Your task to perform on an android device: Check the news Image 0: 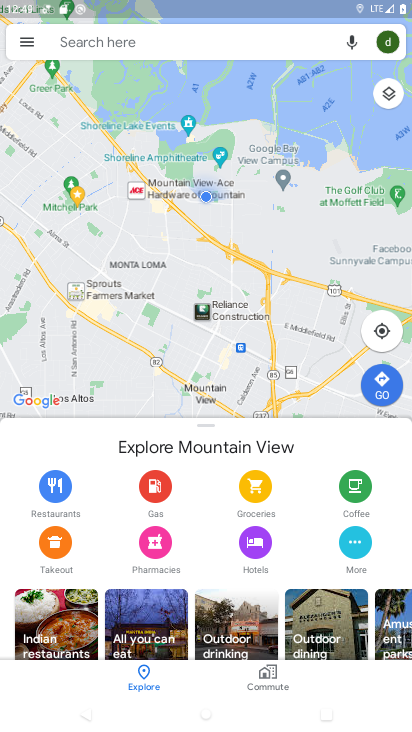
Step 0: press home button
Your task to perform on an android device: Check the news Image 1: 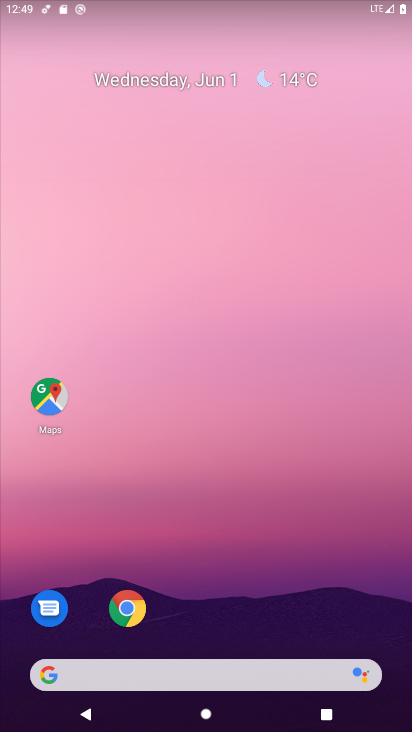
Step 1: click (216, 681)
Your task to perform on an android device: Check the news Image 2: 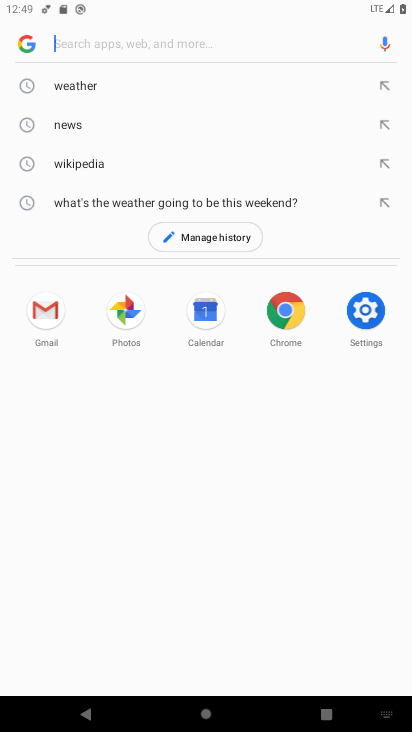
Step 2: click (78, 132)
Your task to perform on an android device: Check the news Image 3: 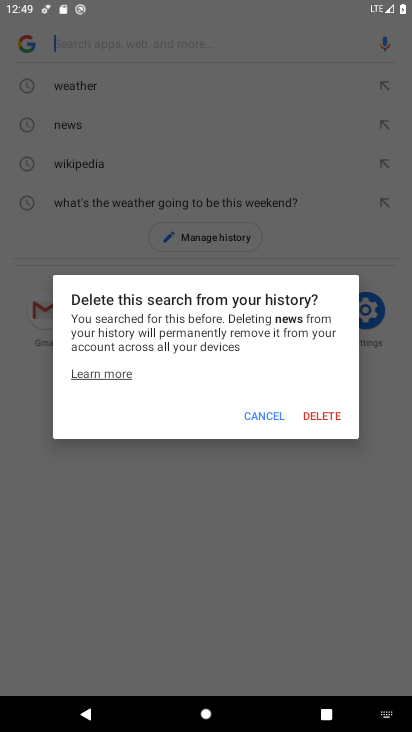
Step 3: click (261, 420)
Your task to perform on an android device: Check the news Image 4: 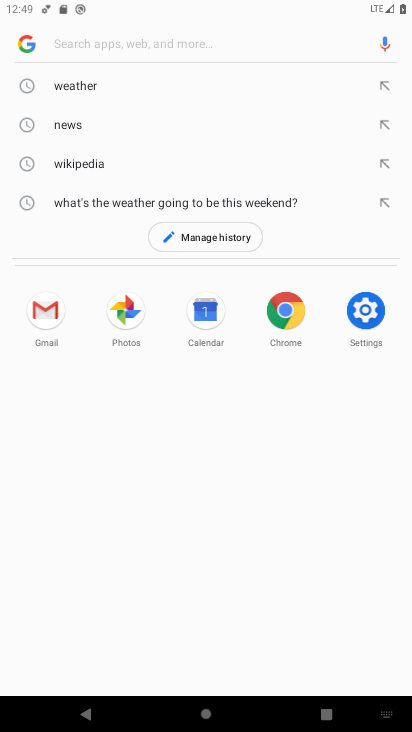
Step 4: click (47, 130)
Your task to perform on an android device: Check the news Image 5: 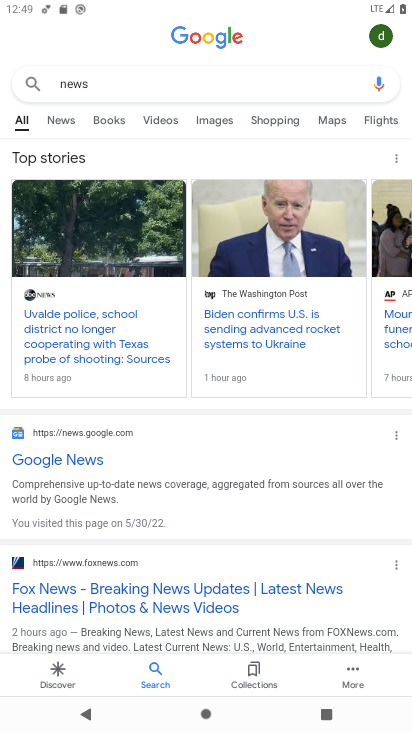
Step 5: task complete